Your task to perform on an android device: check storage Image 0: 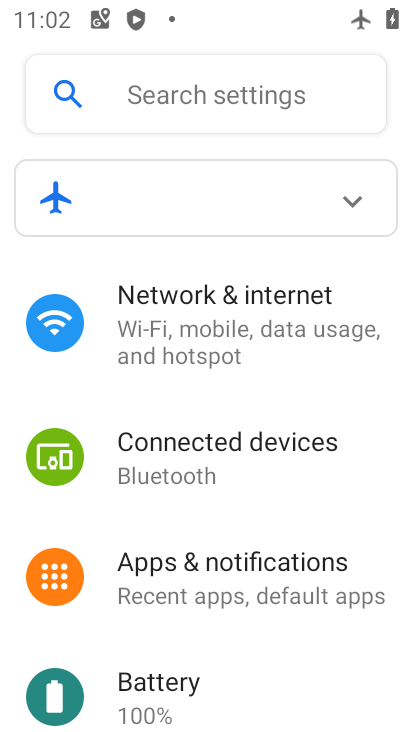
Step 0: press home button
Your task to perform on an android device: check storage Image 1: 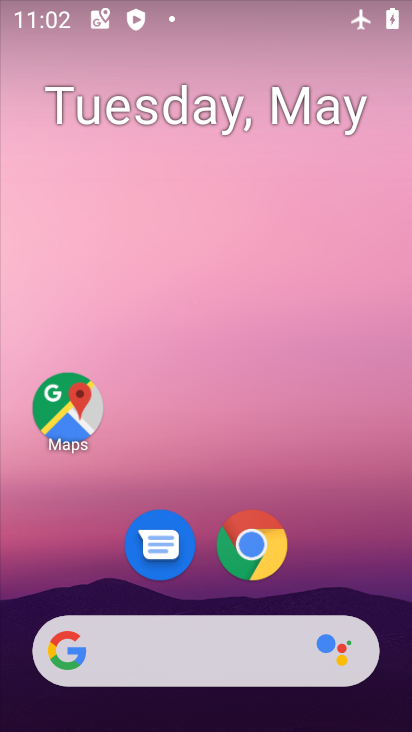
Step 1: drag from (197, 326) to (213, 118)
Your task to perform on an android device: check storage Image 2: 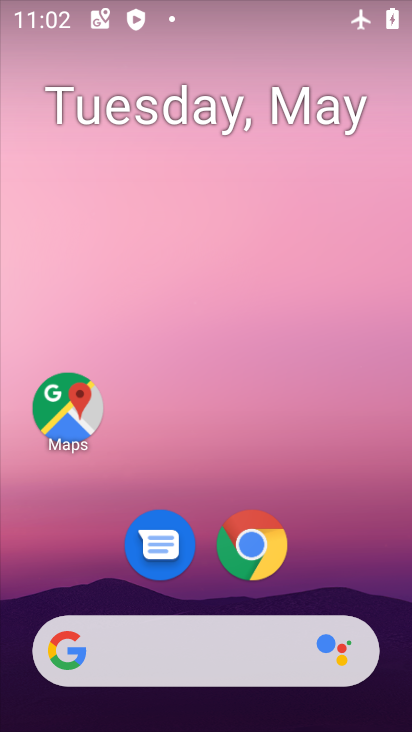
Step 2: drag from (230, 663) to (248, 159)
Your task to perform on an android device: check storage Image 3: 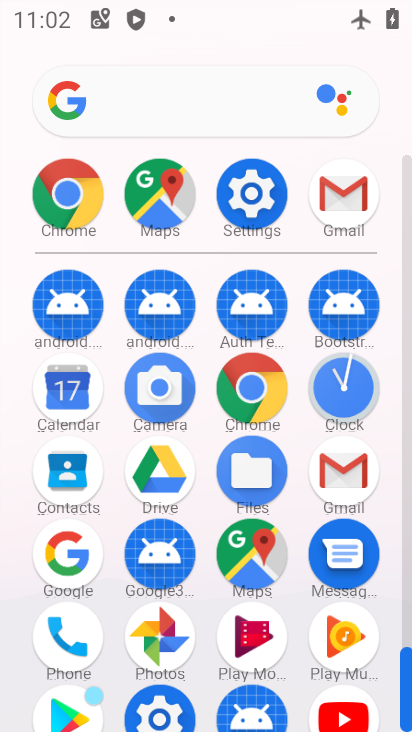
Step 3: click (286, 206)
Your task to perform on an android device: check storage Image 4: 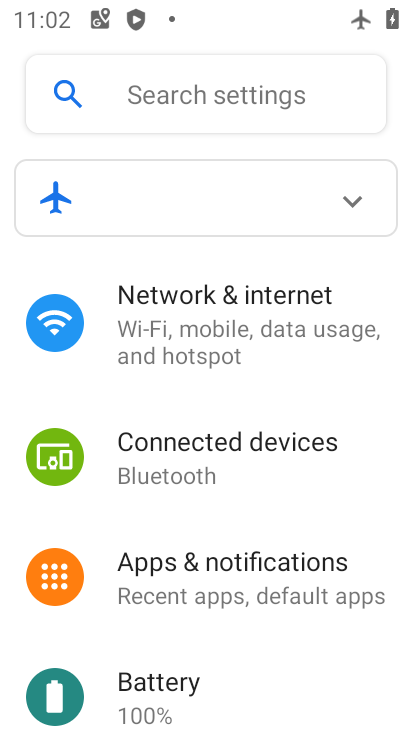
Step 4: drag from (265, 454) to (301, 193)
Your task to perform on an android device: check storage Image 5: 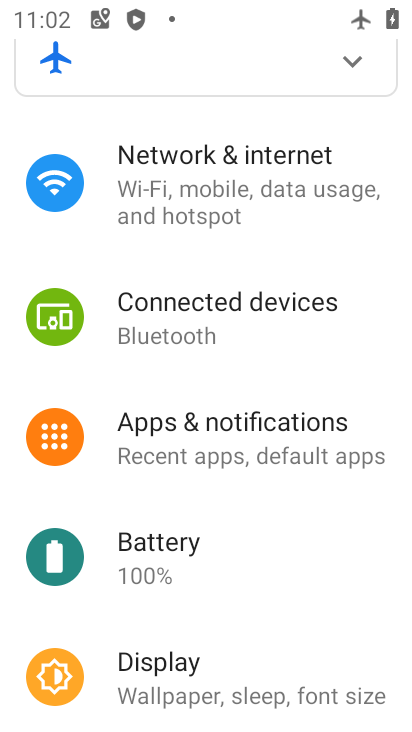
Step 5: drag from (215, 533) to (258, 202)
Your task to perform on an android device: check storage Image 6: 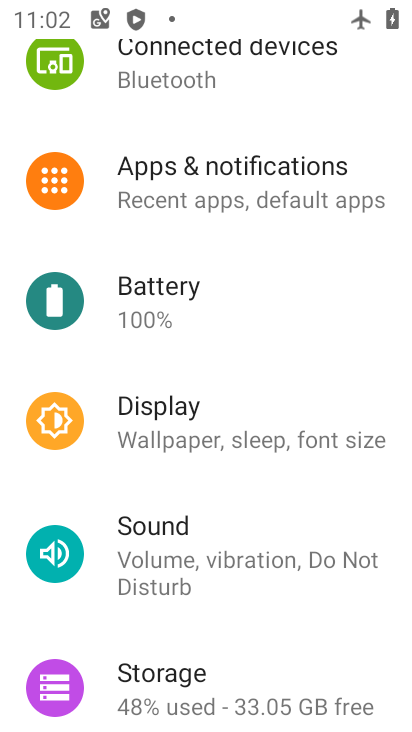
Step 6: click (193, 673)
Your task to perform on an android device: check storage Image 7: 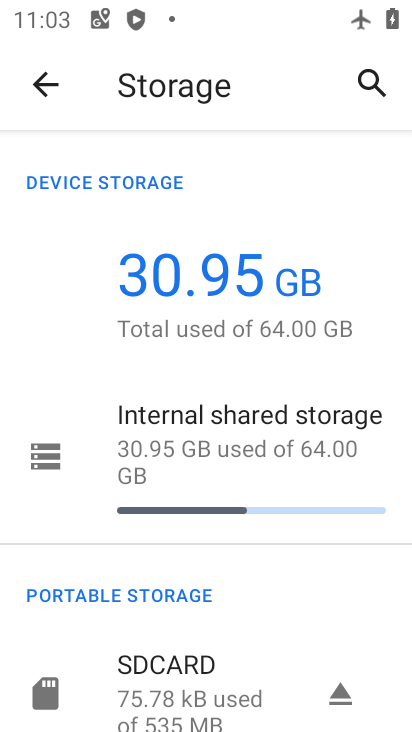
Step 7: click (220, 460)
Your task to perform on an android device: check storage Image 8: 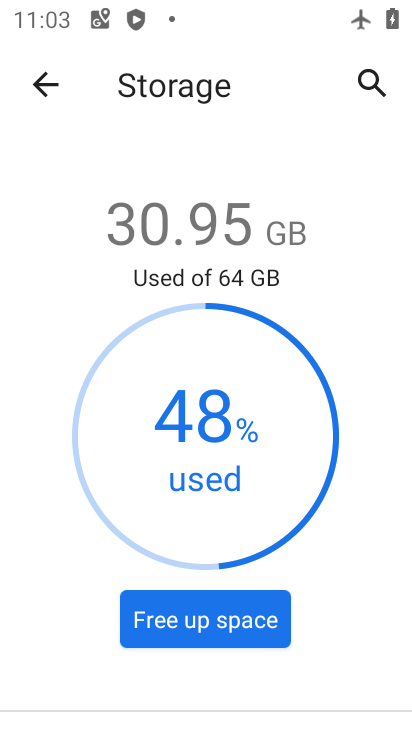
Step 8: task complete